Your task to perform on an android device: Go to Wikipedia Image 0: 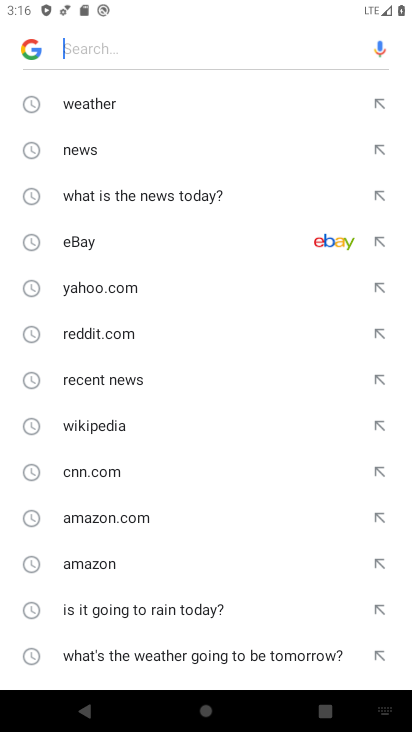
Step 0: press home button
Your task to perform on an android device: Go to Wikipedia Image 1: 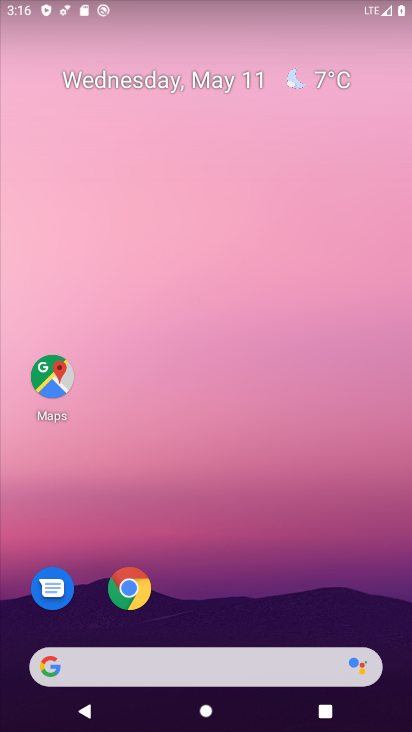
Step 1: click (125, 584)
Your task to perform on an android device: Go to Wikipedia Image 2: 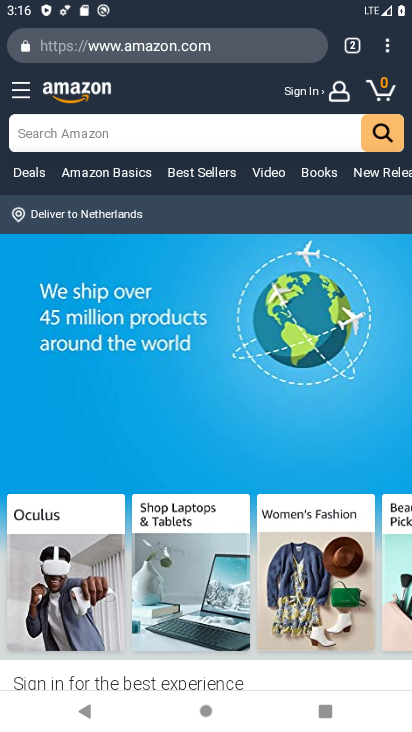
Step 2: click (387, 51)
Your task to perform on an android device: Go to Wikipedia Image 3: 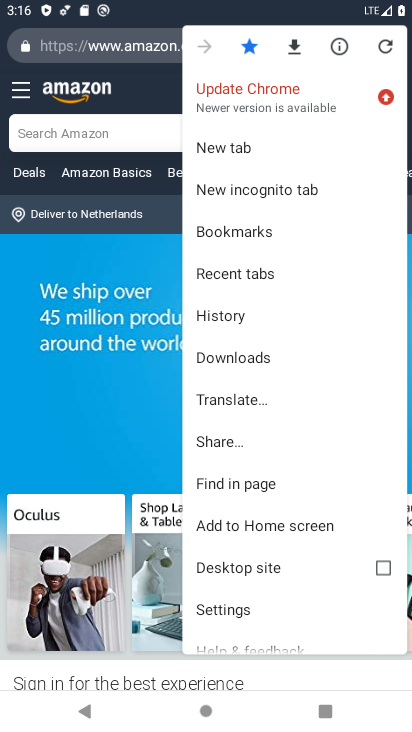
Step 3: click (254, 144)
Your task to perform on an android device: Go to Wikipedia Image 4: 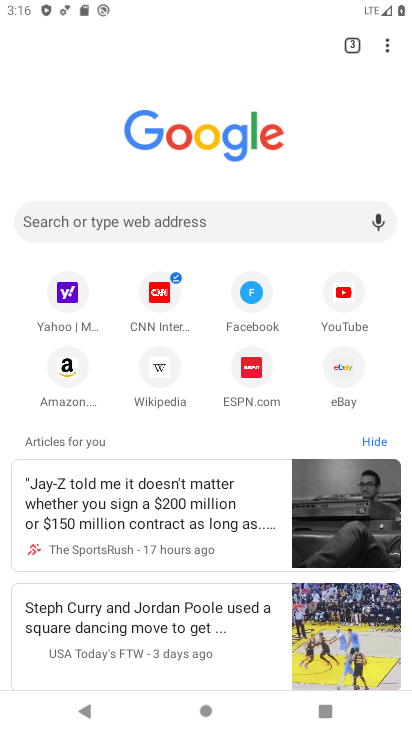
Step 4: click (161, 365)
Your task to perform on an android device: Go to Wikipedia Image 5: 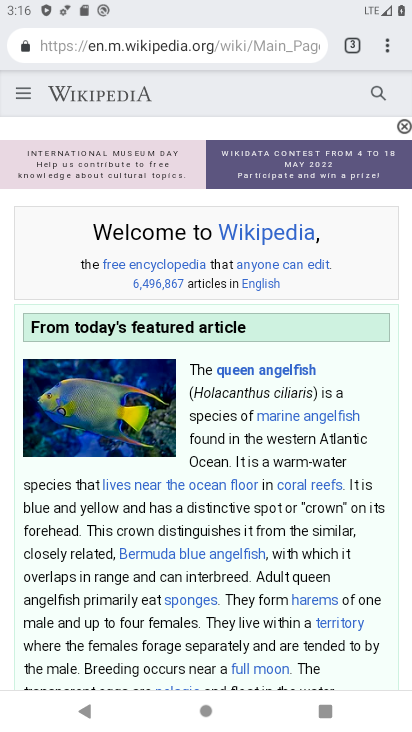
Step 5: task complete